Your task to perform on an android device: Open battery settings Image 0: 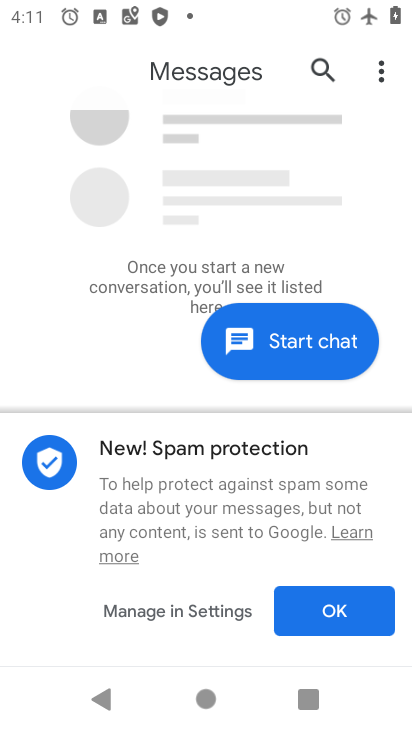
Step 0: press home button
Your task to perform on an android device: Open battery settings Image 1: 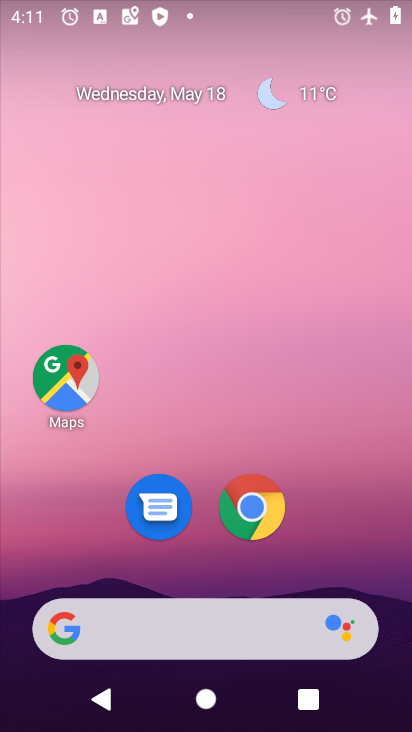
Step 1: drag from (392, 615) to (331, 138)
Your task to perform on an android device: Open battery settings Image 2: 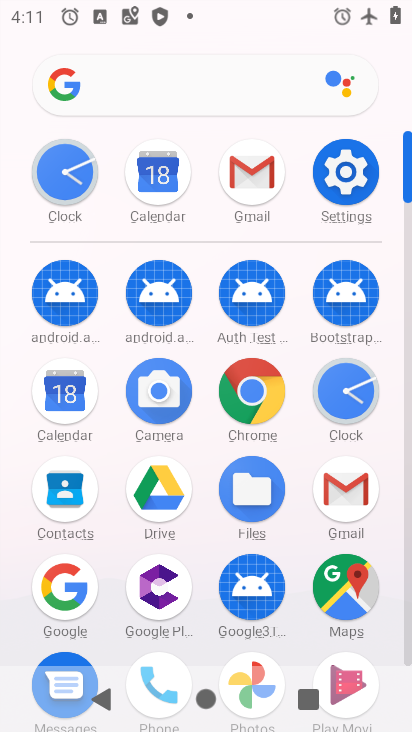
Step 2: click (408, 649)
Your task to perform on an android device: Open battery settings Image 3: 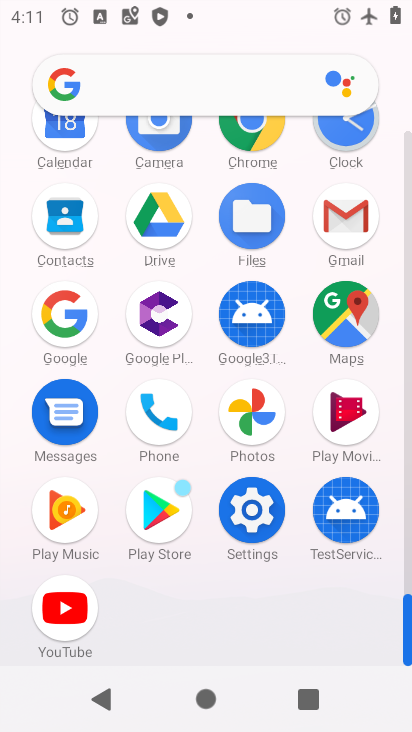
Step 3: click (250, 512)
Your task to perform on an android device: Open battery settings Image 4: 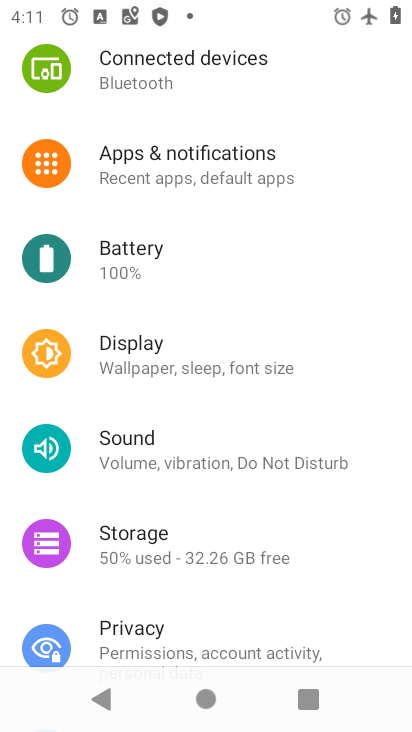
Step 4: click (122, 254)
Your task to perform on an android device: Open battery settings Image 5: 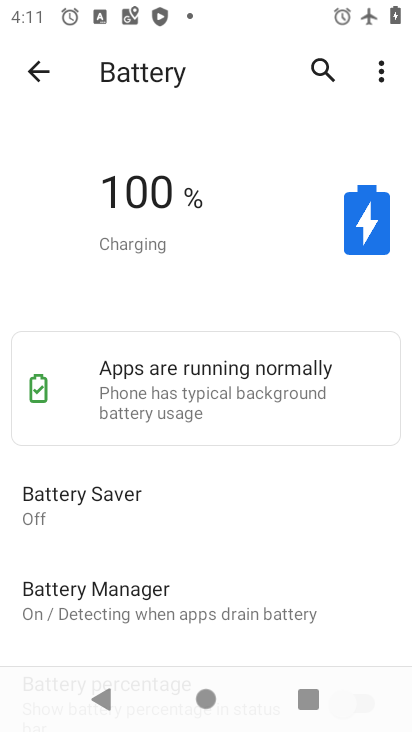
Step 5: task complete